Your task to perform on an android device: Open Google Image 0: 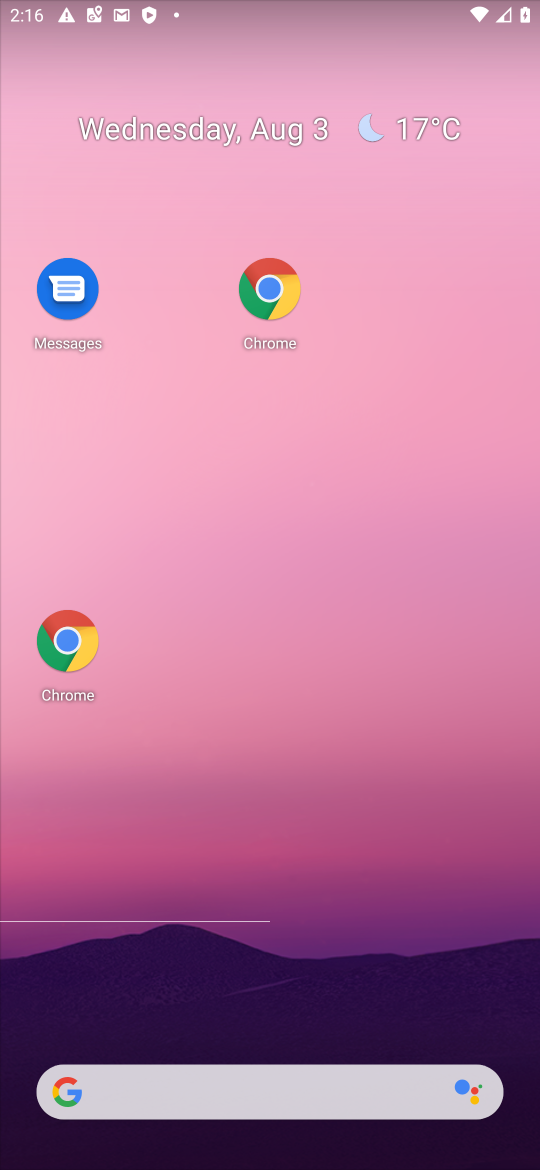
Step 0: click (286, 309)
Your task to perform on an android device: Open Google Image 1: 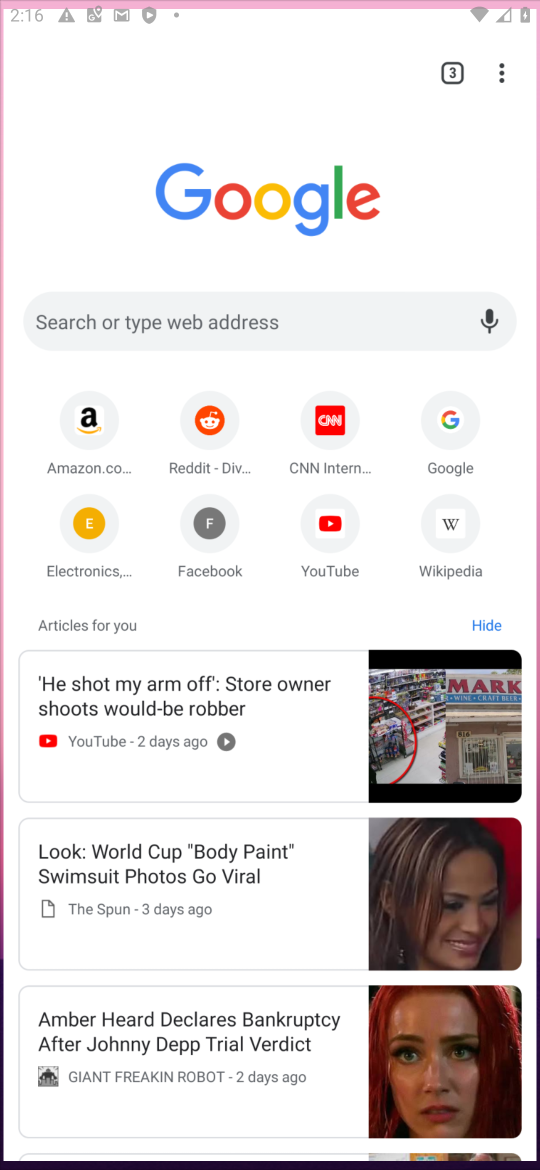
Step 1: task complete